Your task to perform on an android device: Go to Yahoo.com Image 0: 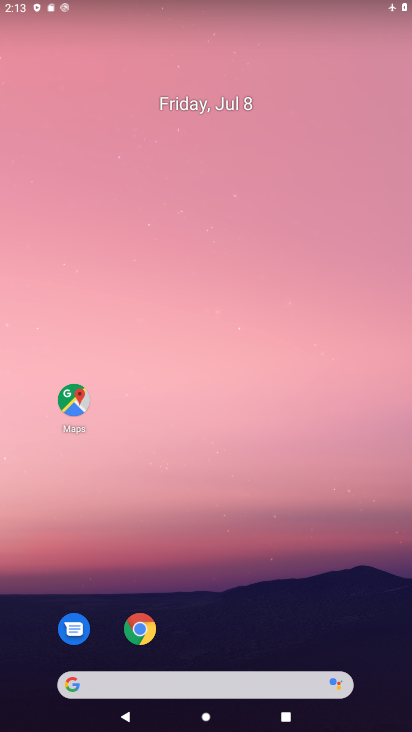
Step 0: click (110, 689)
Your task to perform on an android device: Go to Yahoo.com Image 1: 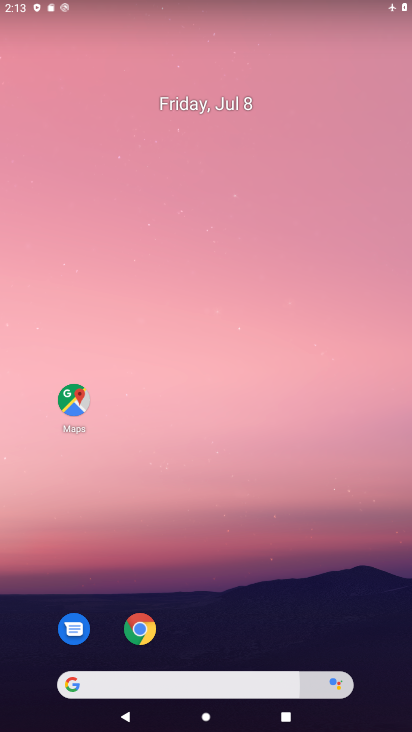
Step 1: click (108, 680)
Your task to perform on an android device: Go to Yahoo.com Image 2: 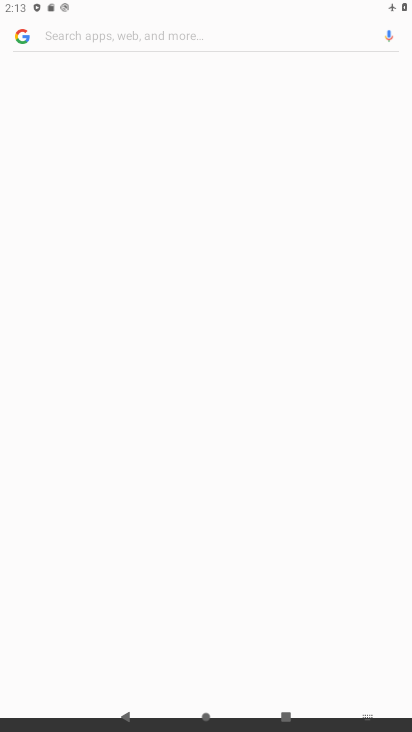
Step 2: click (108, 676)
Your task to perform on an android device: Go to Yahoo.com Image 3: 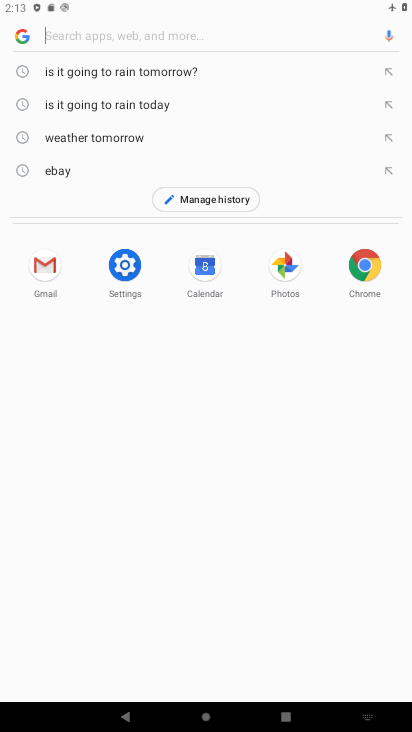
Step 3: type "Yahoo.com"
Your task to perform on an android device: Go to Yahoo.com Image 4: 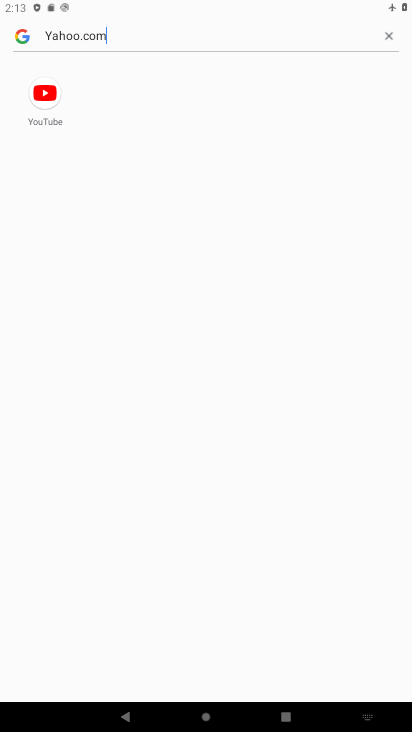
Step 4: type ""
Your task to perform on an android device: Go to Yahoo.com Image 5: 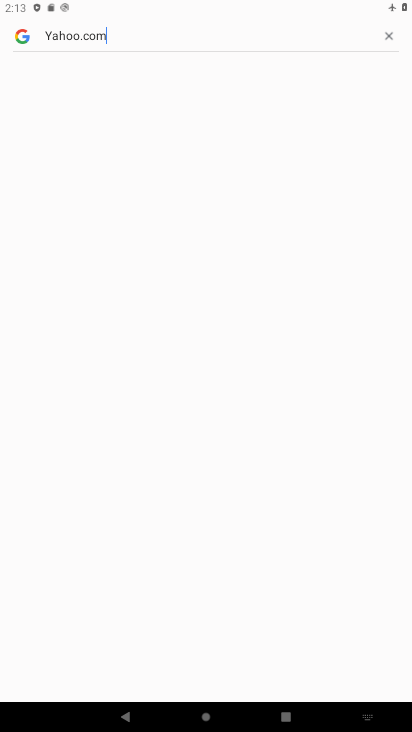
Step 5: type ""
Your task to perform on an android device: Go to Yahoo.com Image 6: 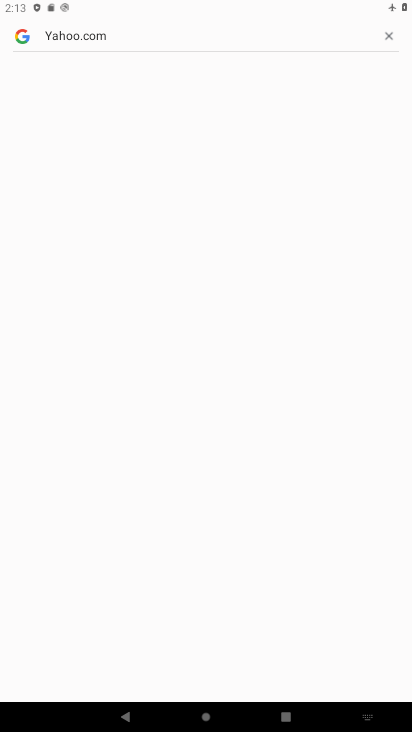
Step 6: type ""
Your task to perform on an android device: Go to Yahoo.com Image 7: 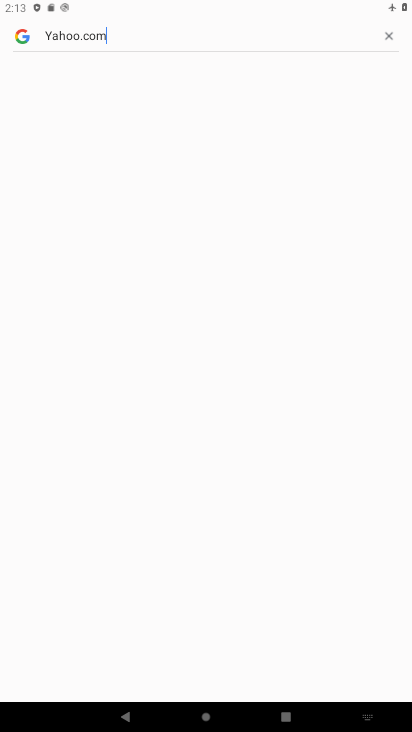
Step 7: type ""
Your task to perform on an android device: Go to Yahoo.com Image 8: 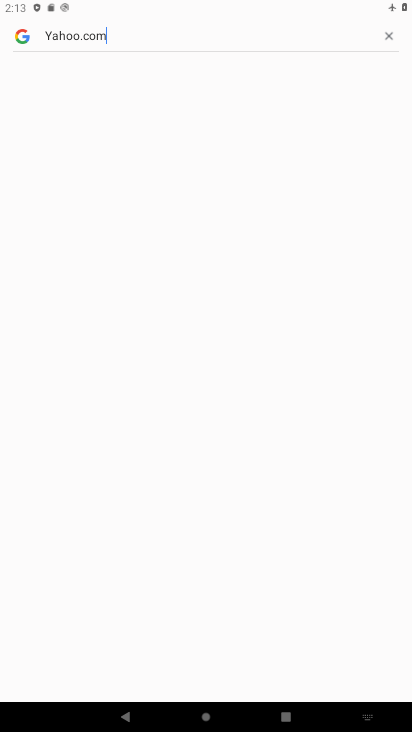
Step 8: type "  "
Your task to perform on an android device: Go to Yahoo.com Image 9: 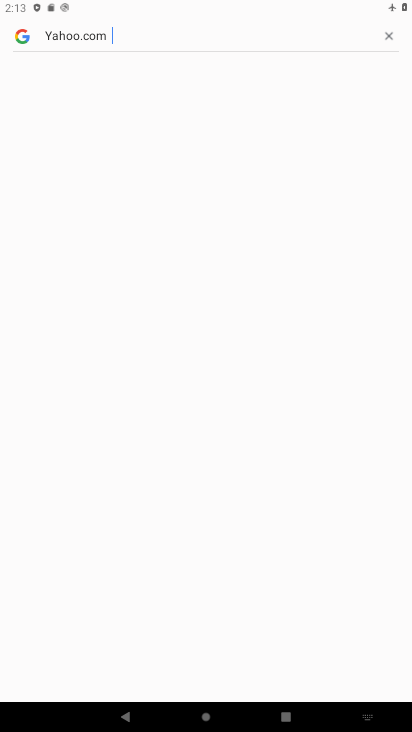
Step 9: task complete